Your task to perform on an android device: toggle location history Image 0: 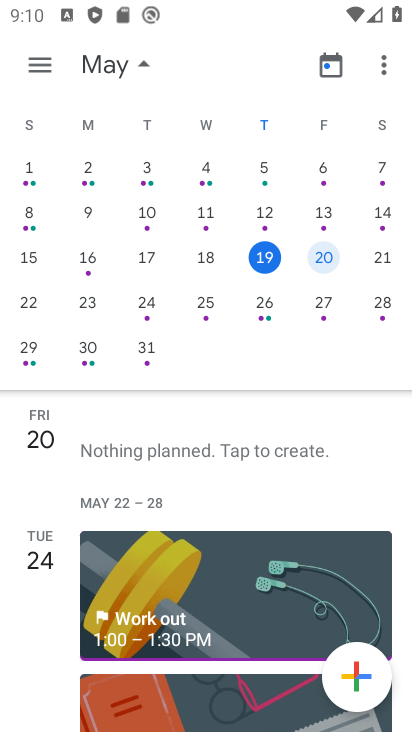
Step 0: press home button
Your task to perform on an android device: toggle location history Image 1: 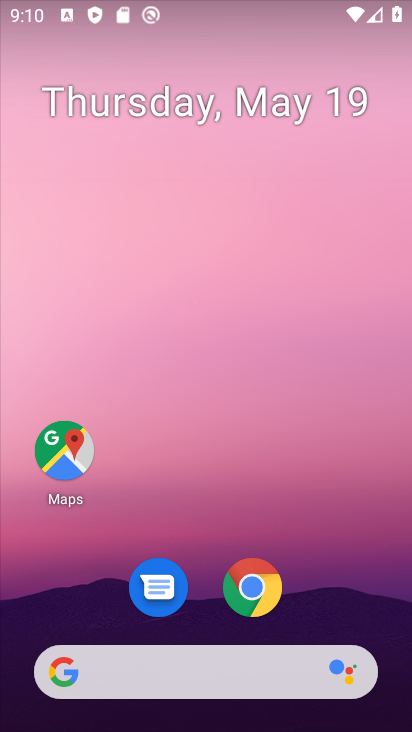
Step 1: drag from (364, 529) to (410, 160)
Your task to perform on an android device: toggle location history Image 2: 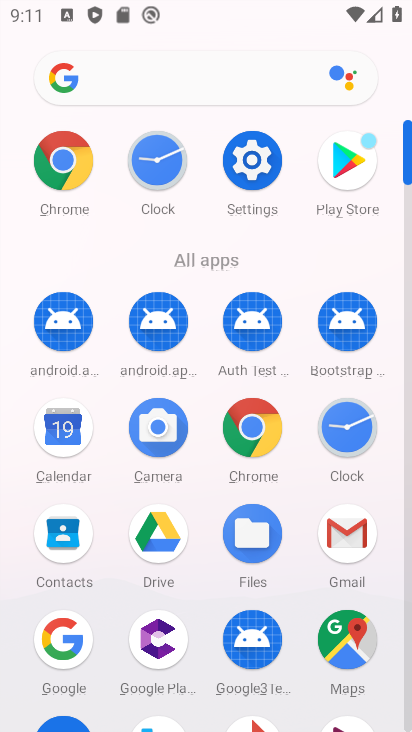
Step 2: click (271, 175)
Your task to perform on an android device: toggle location history Image 3: 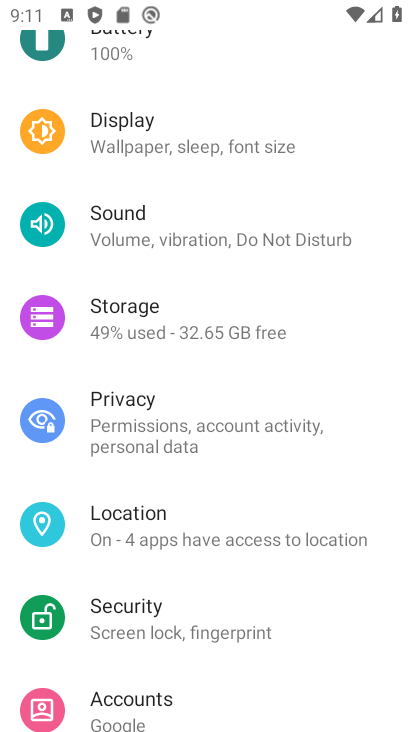
Step 3: click (217, 539)
Your task to perform on an android device: toggle location history Image 4: 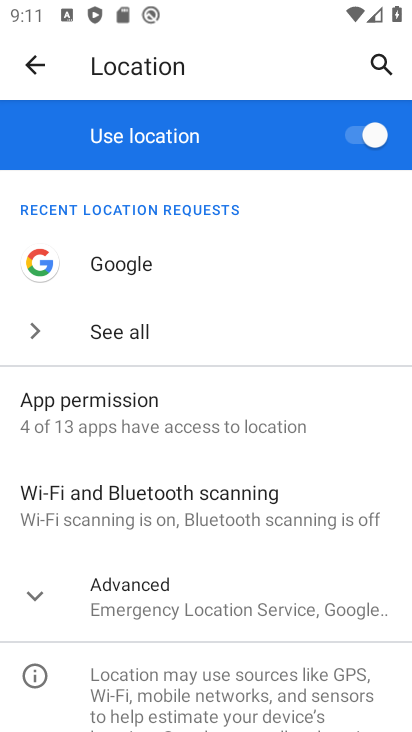
Step 4: drag from (110, 580) to (218, 214)
Your task to perform on an android device: toggle location history Image 5: 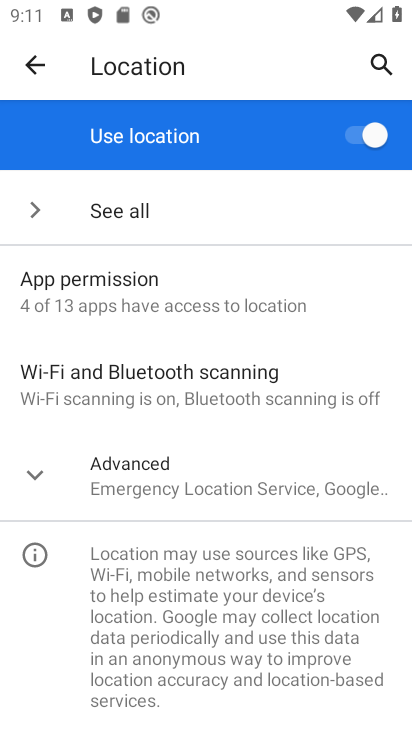
Step 5: click (139, 491)
Your task to perform on an android device: toggle location history Image 6: 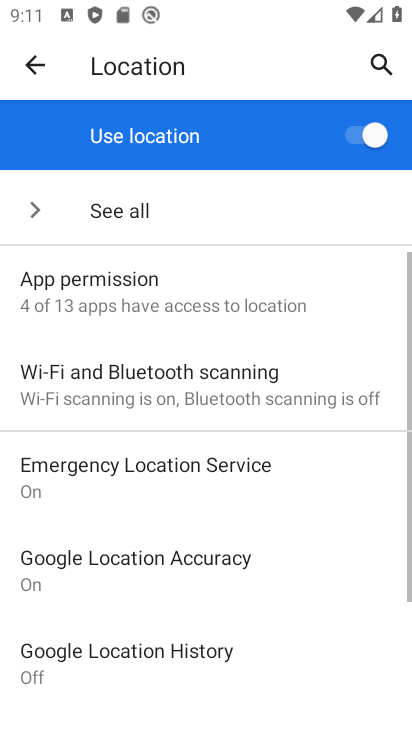
Step 6: drag from (181, 691) to (251, 388)
Your task to perform on an android device: toggle location history Image 7: 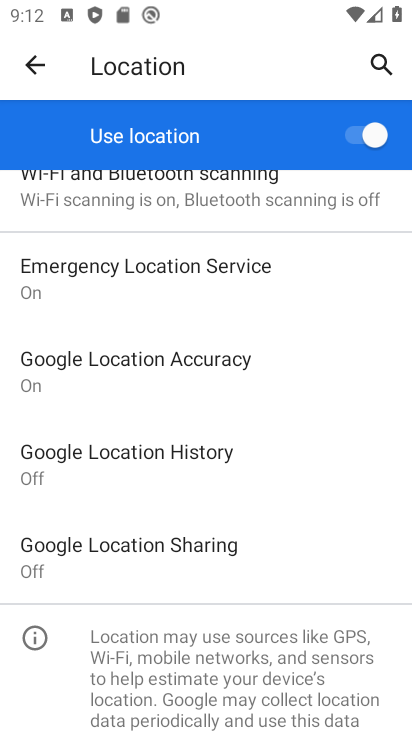
Step 7: drag from (217, 629) to (300, 399)
Your task to perform on an android device: toggle location history Image 8: 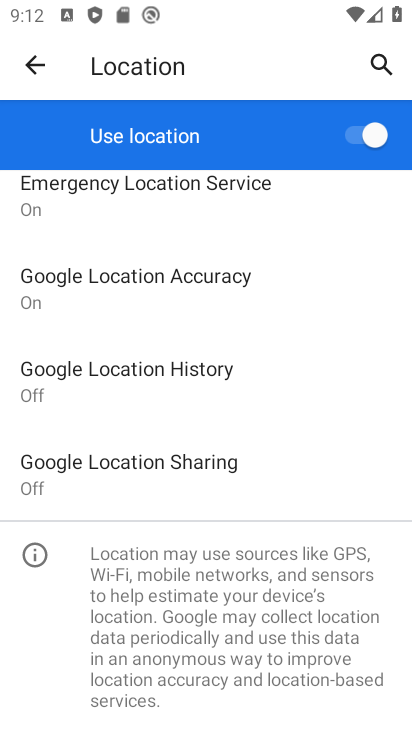
Step 8: click (158, 392)
Your task to perform on an android device: toggle location history Image 9: 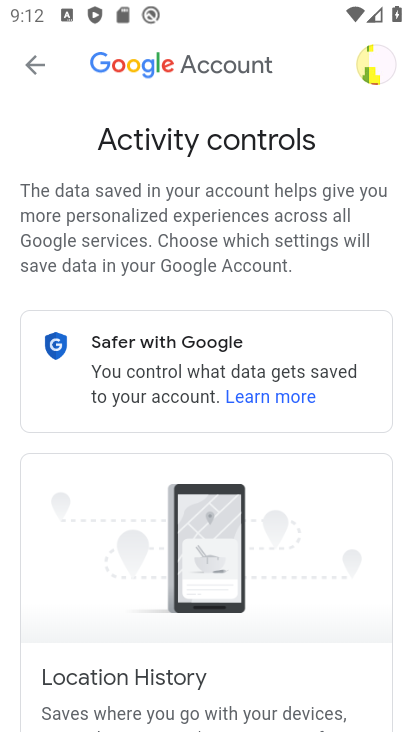
Step 9: drag from (299, 584) to (335, 128)
Your task to perform on an android device: toggle location history Image 10: 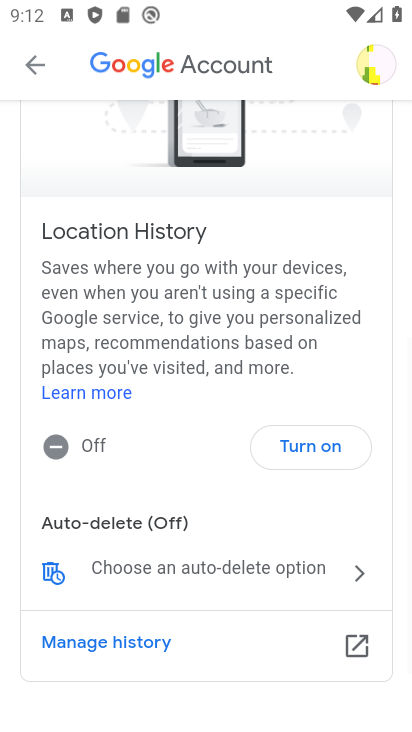
Step 10: drag from (306, 582) to (318, 446)
Your task to perform on an android device: toggle location history Image 11: 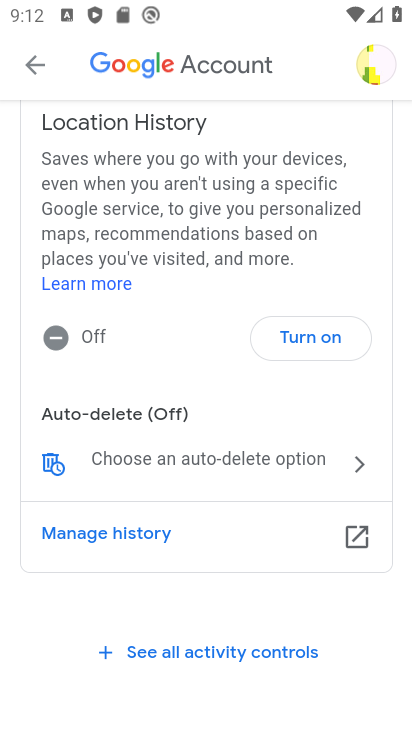
Step 11: click (341, 336)
Your task to perform on an android device: toggle location history Image 12: 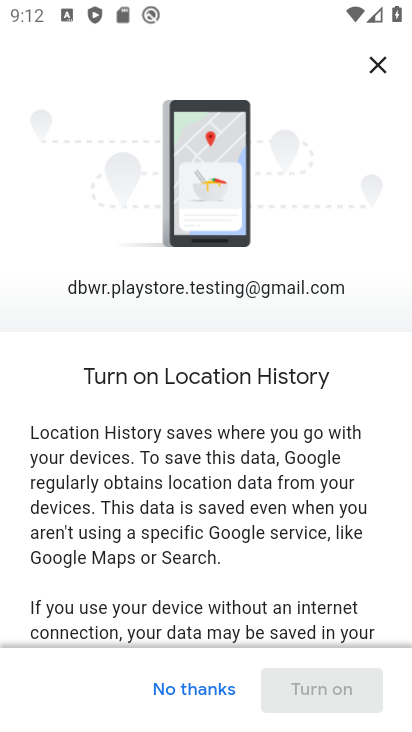
Step 12: drag from (306, 579) to (363, 224)
Your task to perform on an android device: toggle location history Image 13: 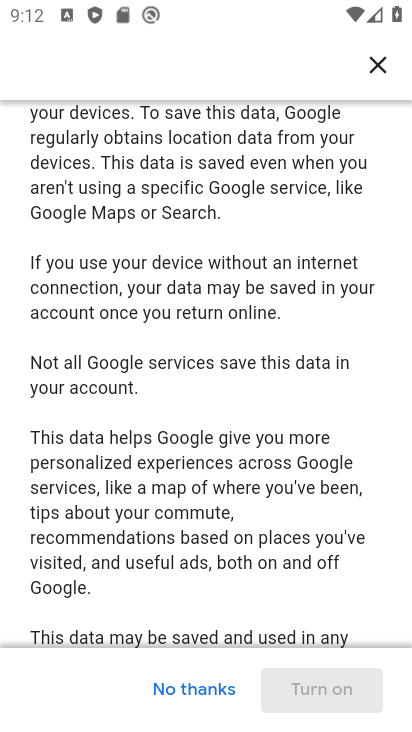
Step 13: drag from (295, 632) to (259, 241)
Your task to perform on an android device: toggle location history Image 14: 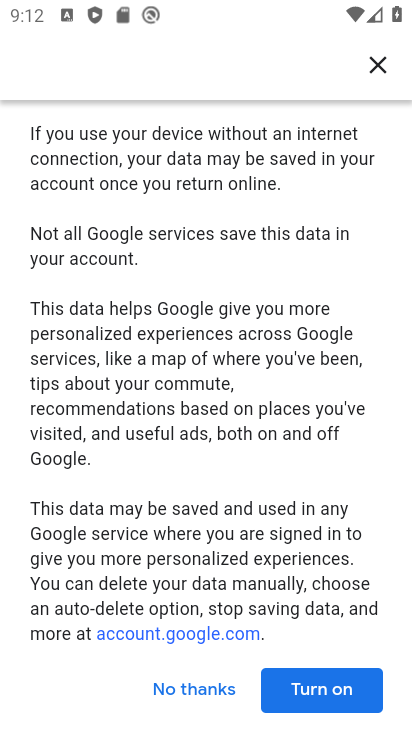
Step 14: click (336, 693)
Your task to perform on an android device: toggle location history Image 15: 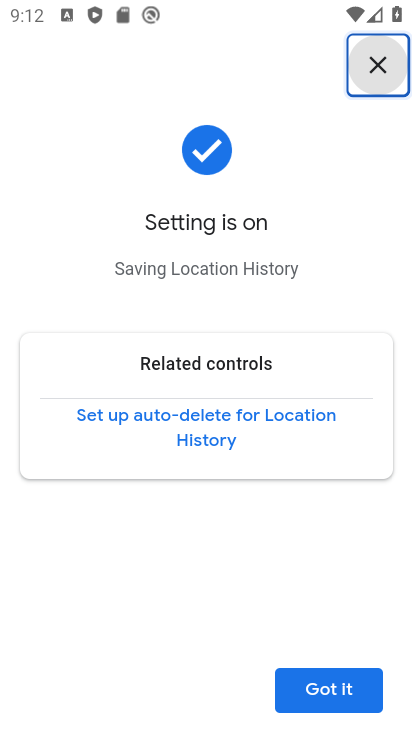
Step 15: task complete